Your task to perform on an android device: toggle notification dots Image 0: 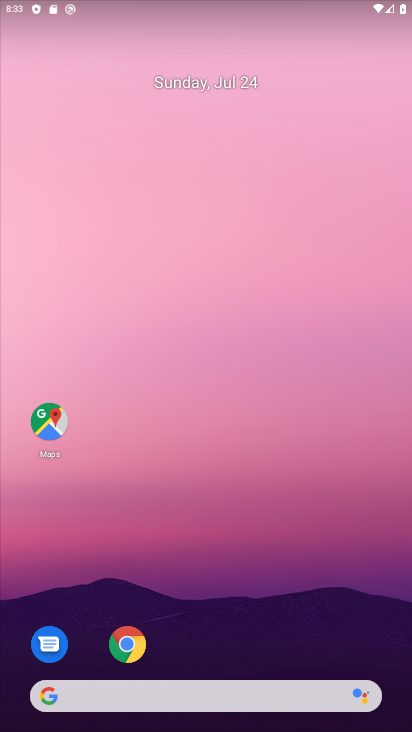
Step 0: drag from (273, 624) to (316, 9)
Your task to perform on an android device: toggle notification dots Image 1: 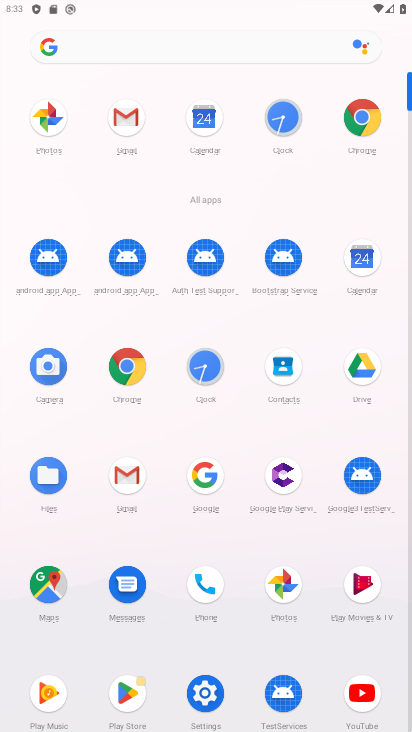
Step 1: click (210, 681)
Your task to perform on an android device: toggle notification dots Image 2: 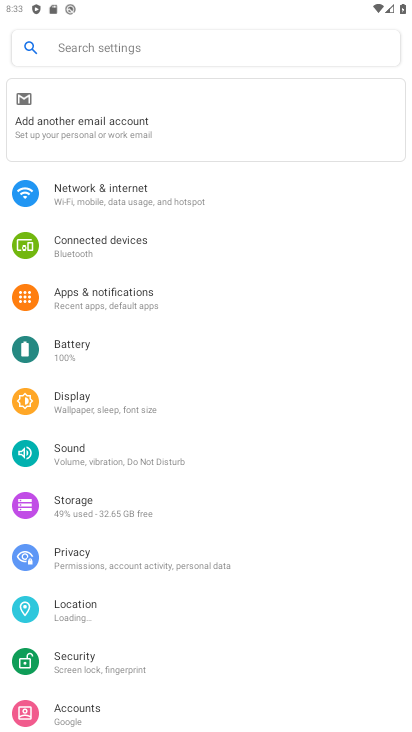
Step 2: drag from (151, 627) to (161, 267)
Your task to perform on an android device: toggle notification dots Image 3: 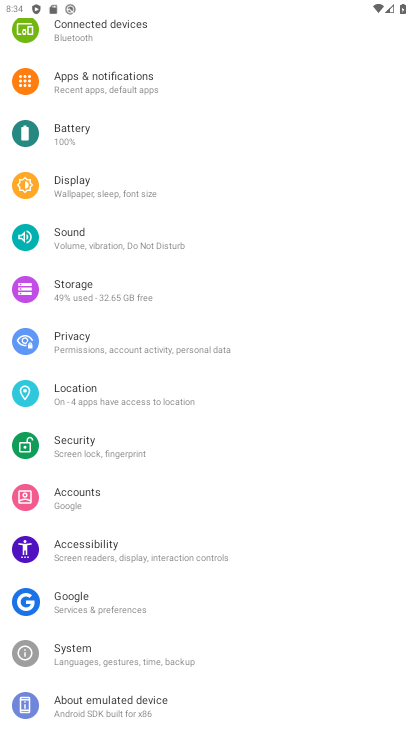
Step 3: click (108, 81)
Your task to perform on an android device: toggle notification dots Image 4: 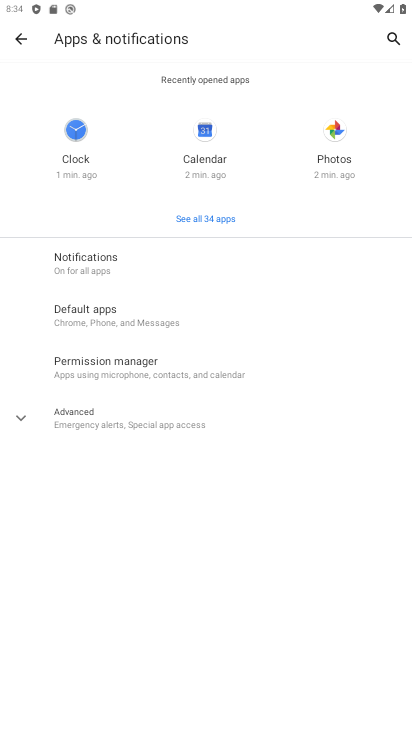
Step 4: click (155, 256)
Your task to perform on an android device: toggle notification dots Image 5: 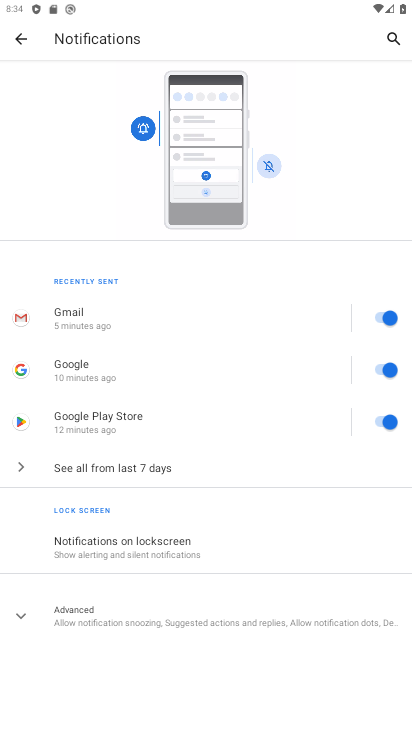
Step 5: drag from (274, 514) to (280, 307)
Your task to perform on an android device: toggle notification dots Image 6: 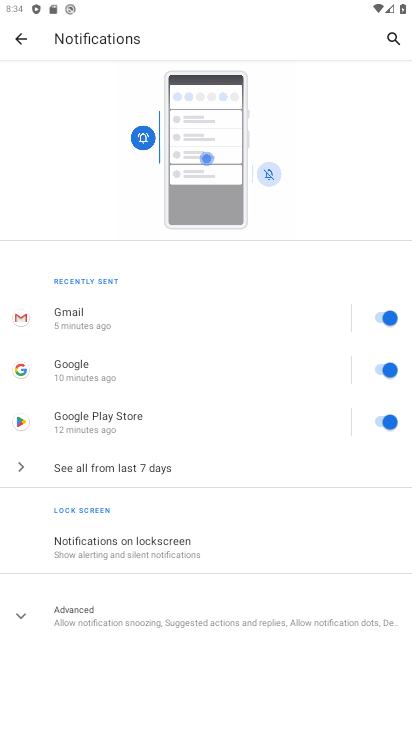
Step 6: click (133, 548)
Your task to perform on an android device: toggle notification dots Image 7: 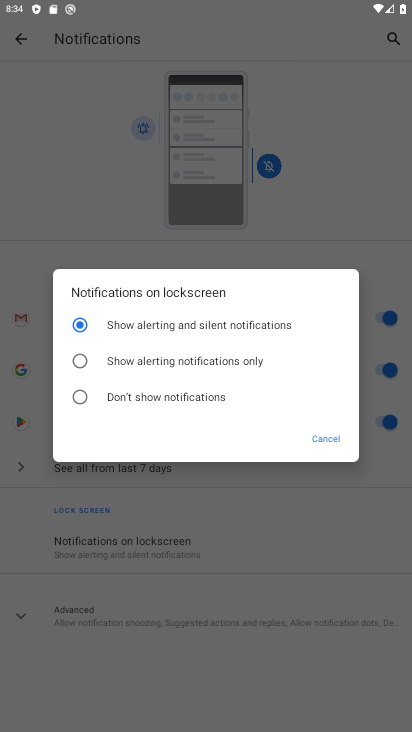
Step 7: click (166, 389)
Your task to perform on an android device: toggle notification dots Image 8: 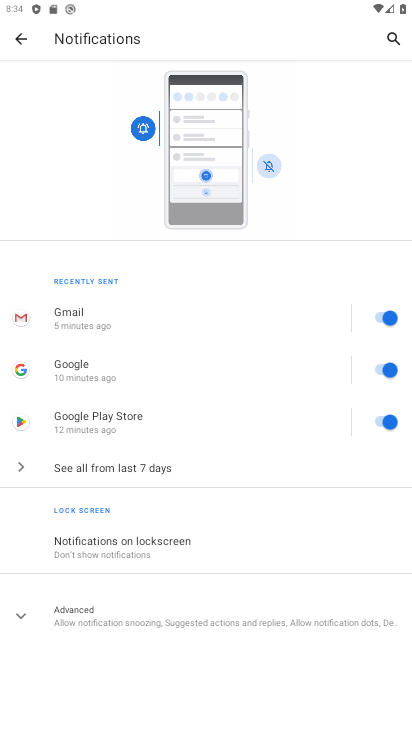
Step 8: task complete